Your task to perform on an android device: change the clock style Image 0: 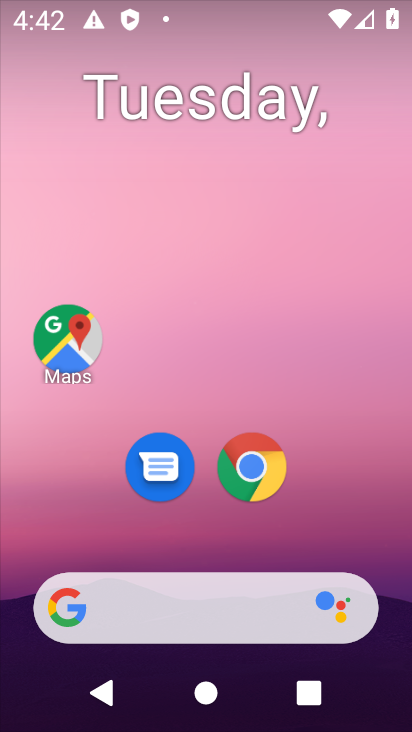
Step 0: drag from (353, 618) to (218, 12)
Your task to perform on an android device: change the clock style Image 1: 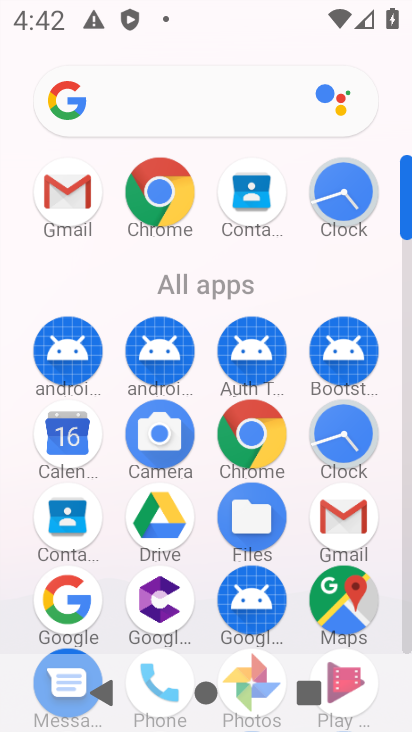
Step 1: click (346, 212)
Your task to perform on an android device: change the clock style Image 2: 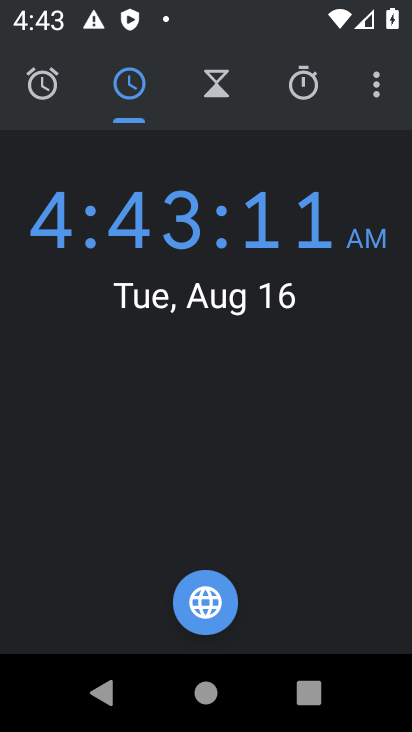
Step 2: click (375, 83)
Your task to perform on an android device: change the clock style Image 3: 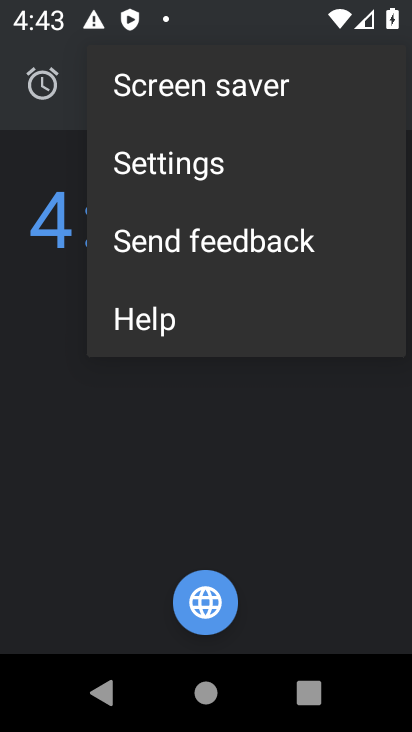
Step 3: click (231, 167)
Your task to perform on an android device: change the clock style Image 4: 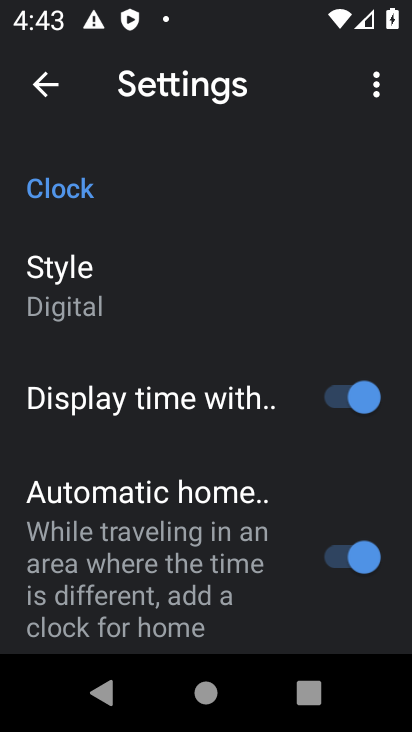
Step 4: click (109, 305)
Your task to perform on an android device: change the clock style Image 5: 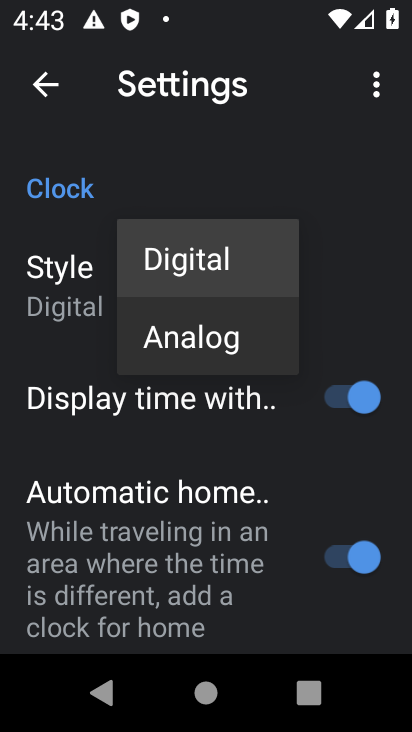
Step 5: click (164, 355)
Your task to perform on an android device: change the clock style Image 6: 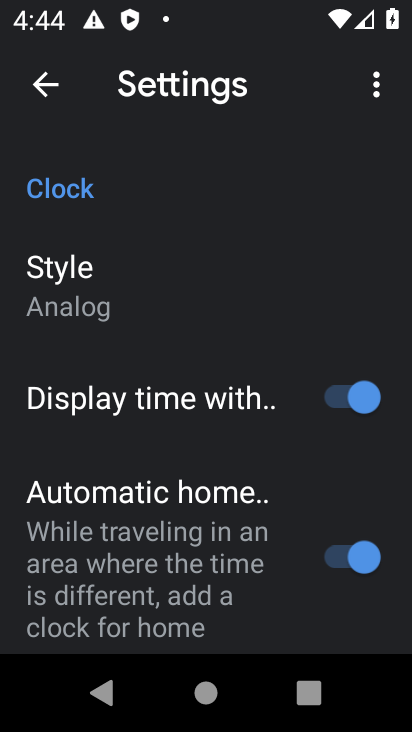
Step 6: task complete